Your task to perform on an android device: turn notification dots on Image 0: 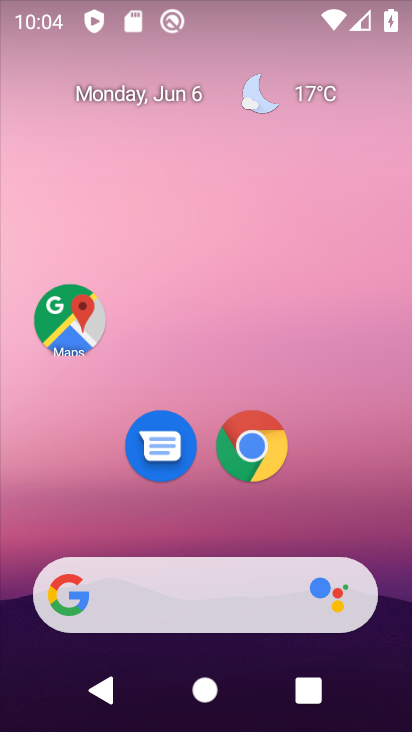
Step 0: drag from (200, 532) to (202, 135)
Your task to perform on an android device: turn notification dots on Image 1: 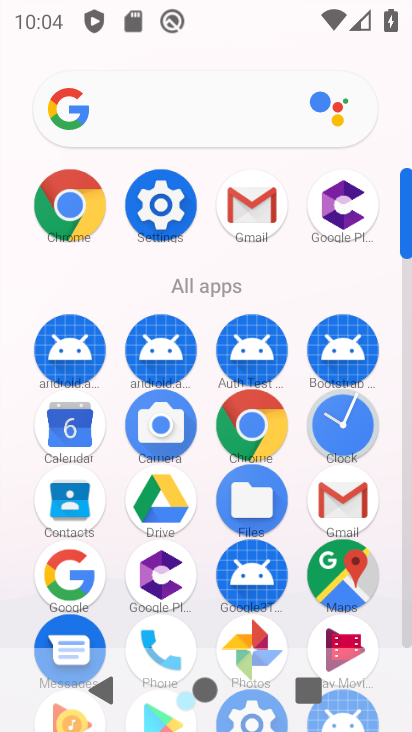
Step 1: click (148, 205)
Your task to perform on an android device: turn notification dots on Image 2: 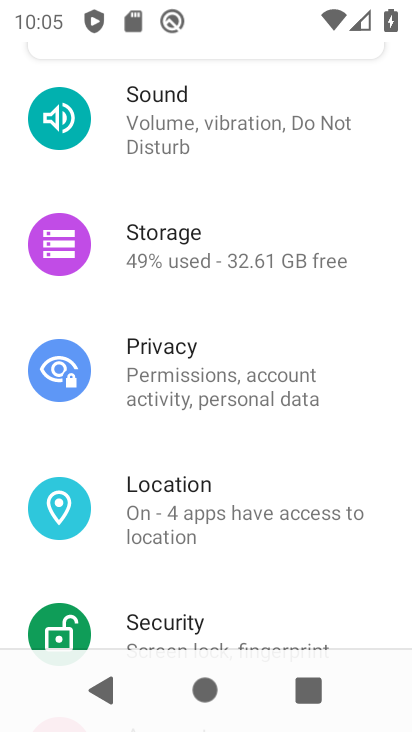
Step 2: drag from (203, 86) to (63, 471)
Your task to perform on an android device: turn notification dots on Image 3: 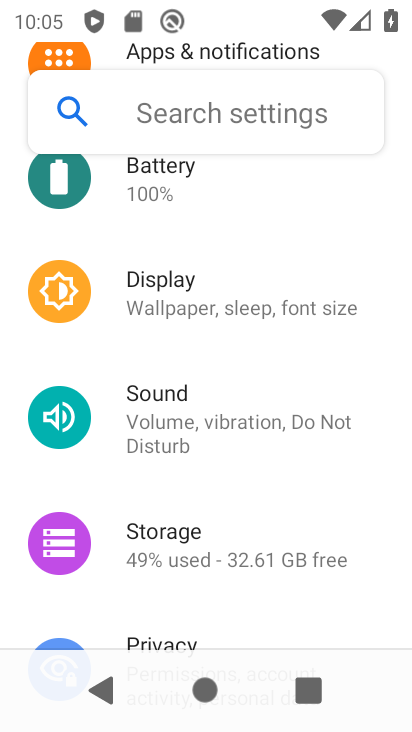
Step 3: drag from (228, 229) to (210, 546)
Your task to perform on an android device: turn notification dots on Image 4: 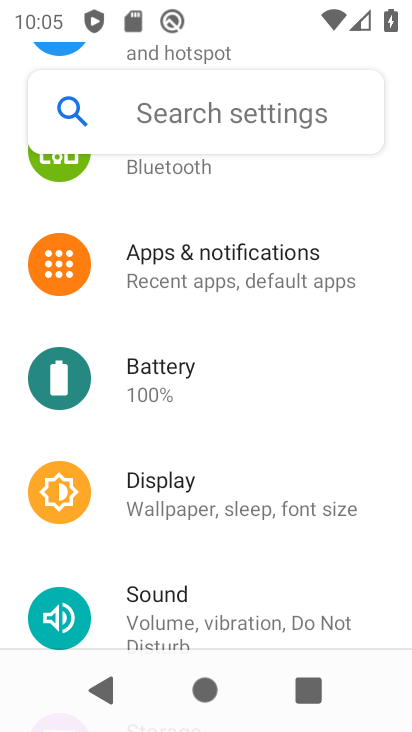
Step 4: click (237, 280)
Your task to perform on an android device: turn notification dots on Image 5: 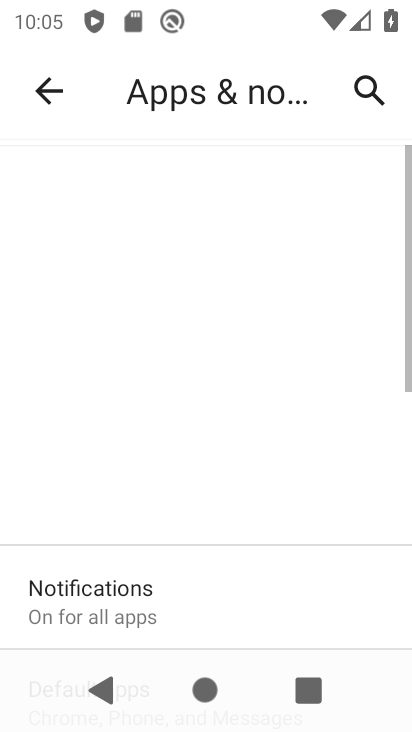
Step 5: click (237, 280)
Your task to perform on an android device: turn notification dots on Image 6: 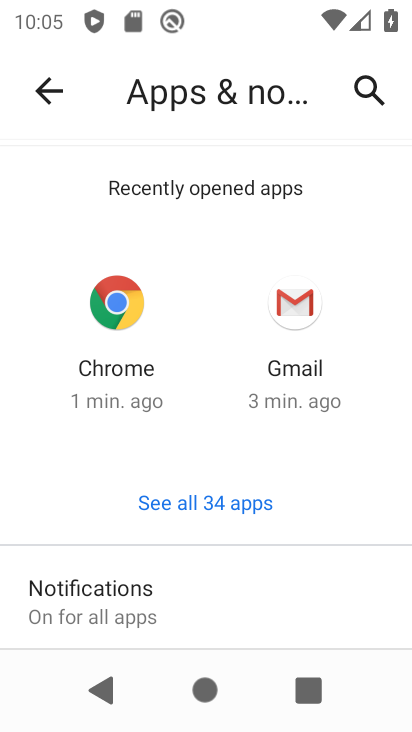
Step 6: drag from (81, 606) to (179, 156)
Your task to perform on an android device: turn notification dots on Image 7: 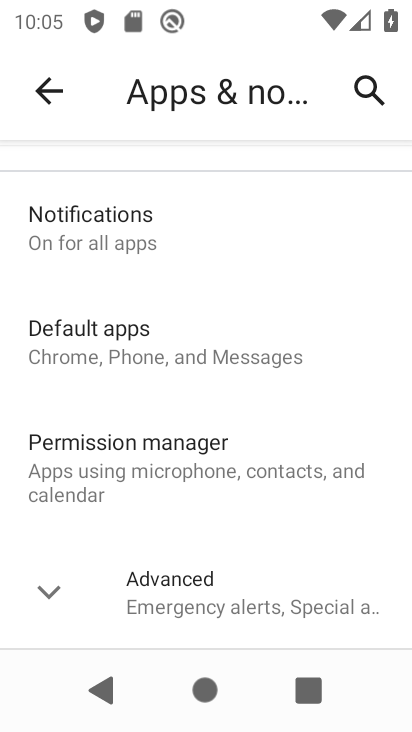
Step 7: drag from (206, 545) to (240, 60)
Your task to perform on an android device: turn notification dots on Image 8: 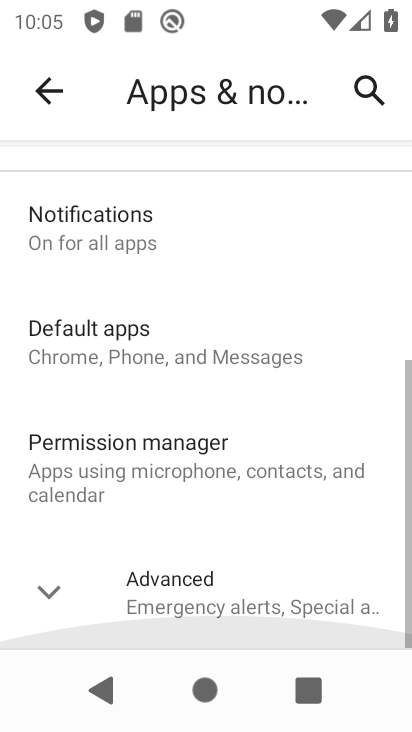
Step 8: drag from (217, 473) to (224, 187)
Your task to perform on an android device: turn notification dots on Image 9: 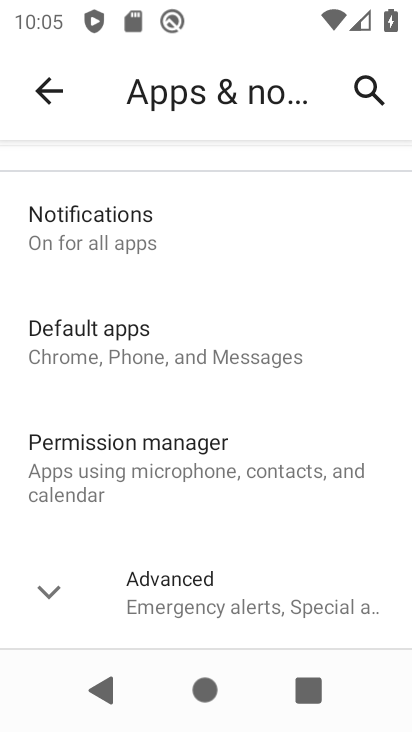
Step 9: click (195, 248)
Your task to perform on an android device: turn notification dots on Image 10: 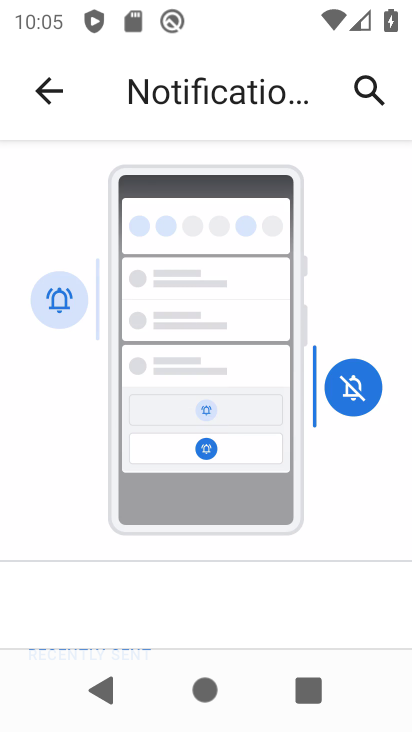
Step 10: drag from (192, 603) to (290, 130)
Your task to perform on an android device: turn notification dots on Image 11: 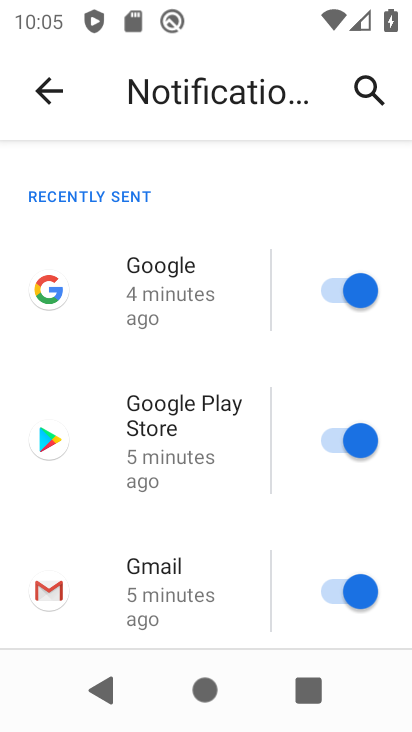
Step 11: drag from (183, 597) to (287, 43)
Your task to perform on an android device: turn notification dots on Image 12: 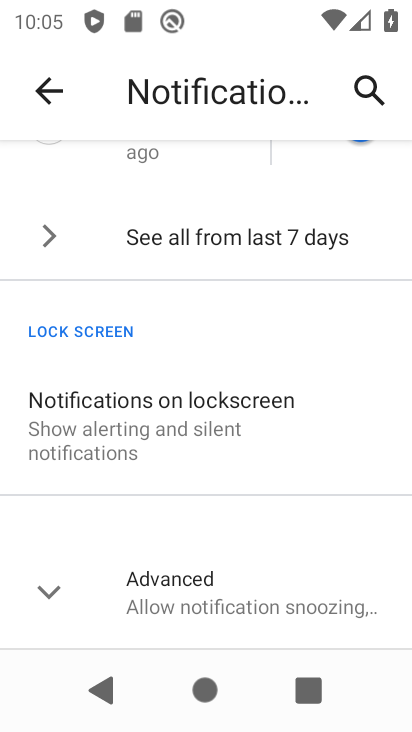
Step 12: click (227, 595)
Your task to perform on an android device: turn notification dots on Image 13: 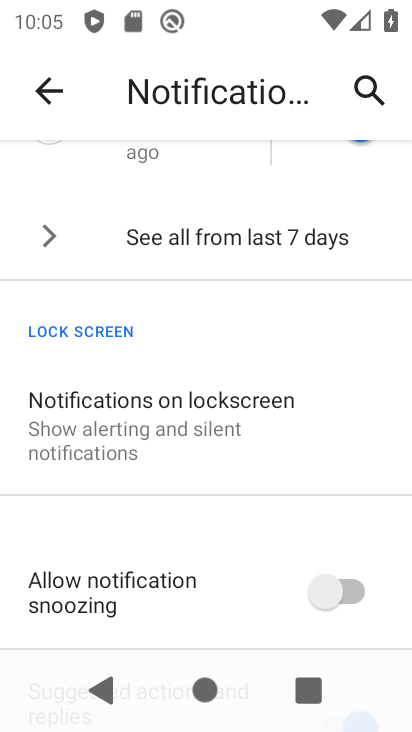
Step 13: drag from (227, 595) to (262, 112)
Your task to perform on an android device: turn notification dots on Image 14: 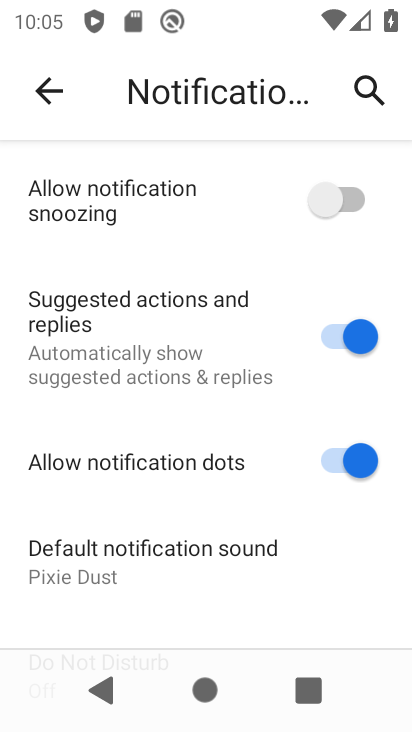
Step 14: click (151, 623)
Your task to perform on an android device: turn notification dots on Image 15: 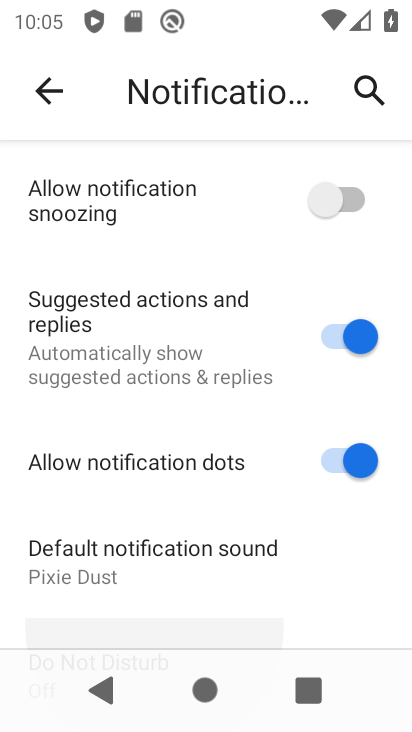
Step 15: task complete